Your task to perform on an android device: empty trash in the gmail app Image 0: 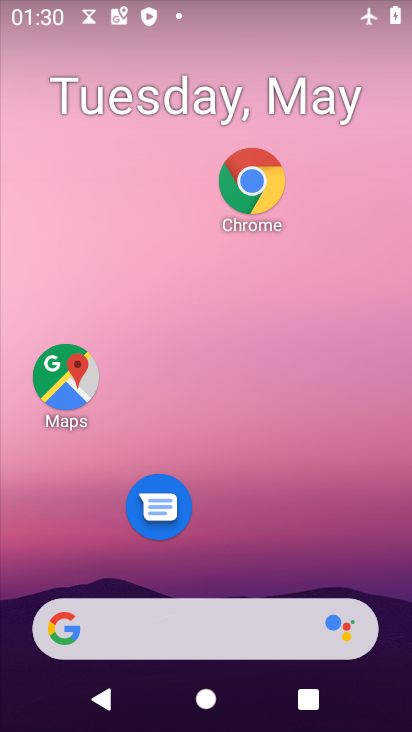
Step 0: drag from (273, 419) to (273, 231)
Your task to perform on an android device: empty trash in the gmail app Image 1: 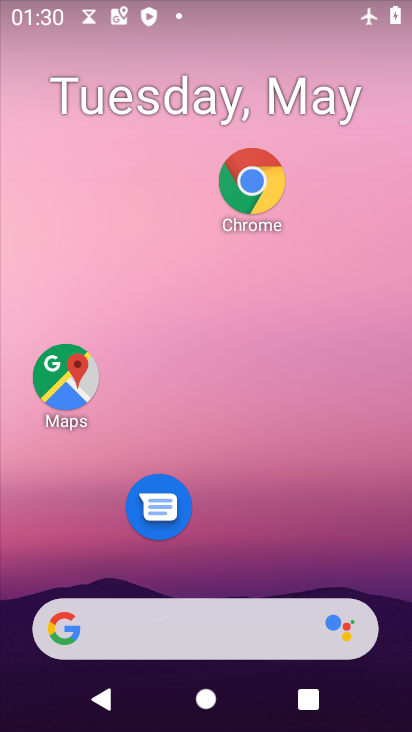
Step 1: drag from (282, 540) to (307, 241)
Your task to perform on an android device: empty trash in the gmail app Image 2: 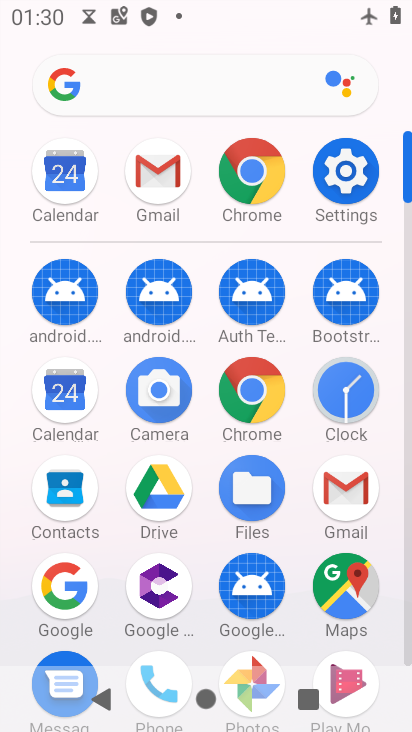
Step 2: click (354, 473)
Your task to perform on an android device: empty trash in the gmail app Image 3: 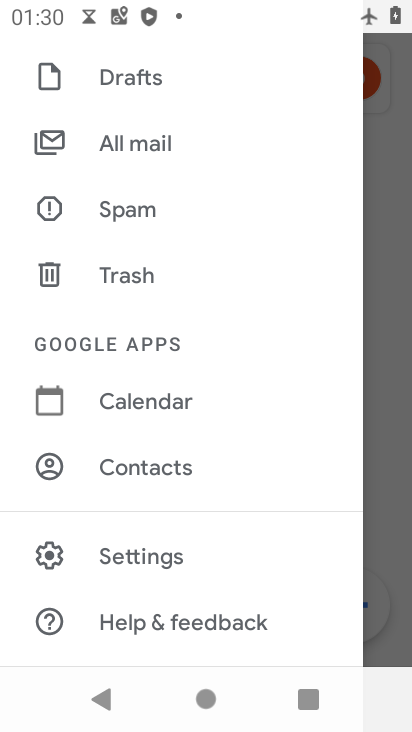
Step 3: click (121, 274)
Your task to perform on an android device: empty trash in the gmail app Image 4: 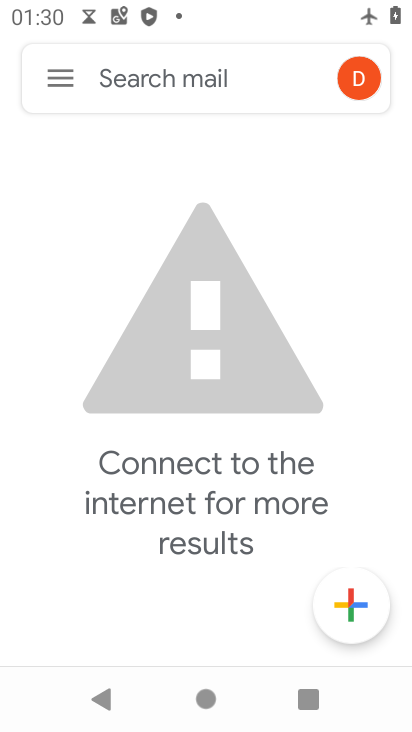
Step 4: task complete